Your task to perform on an android device: turn off priority inbox in the gmail app Image 0: 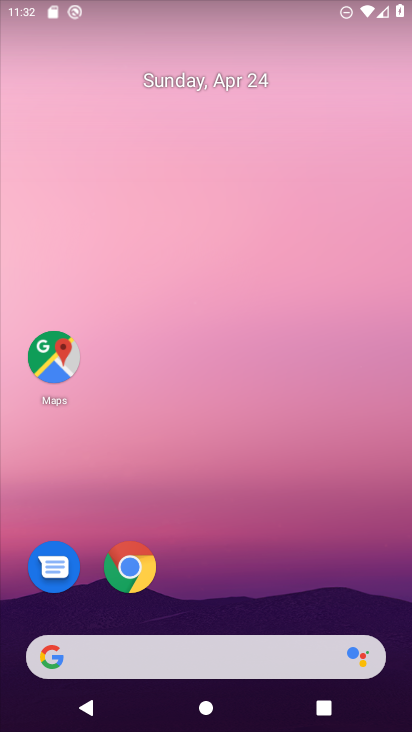
Step 0: drag from (222, 645) to (289, 3)
Your task to perform on an android device: turn off priority inbox in the gmail app Image 1: 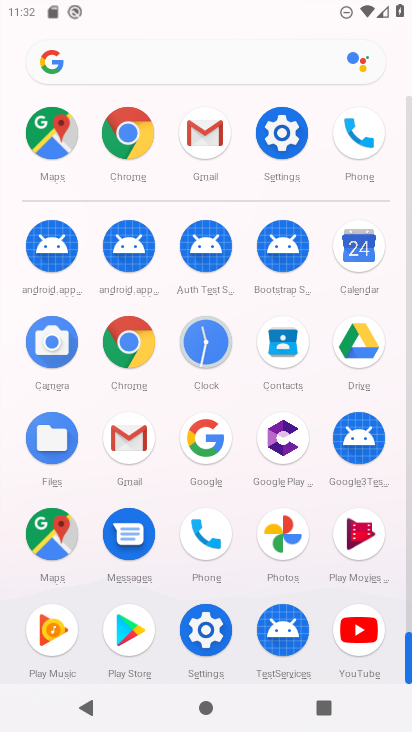
Step 1: click (119, 430)
Your task to perform on an android device: turn off priority inbox in the gmail app Image 2: 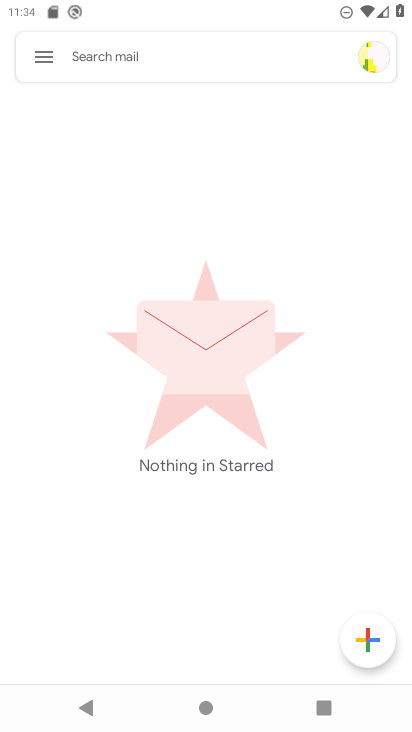
Step 2: click (33, 52)
Your task to perform on an android device: turn off priority inbox in the gmail app Image 3: 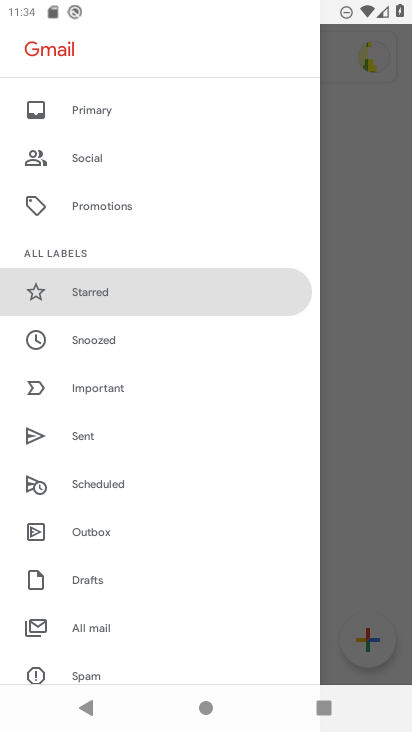
Step 3: drag from (264, 312) to (276, 60)
Your task to perform on an android device: turn off priority inbox in the gmail app Image 4: 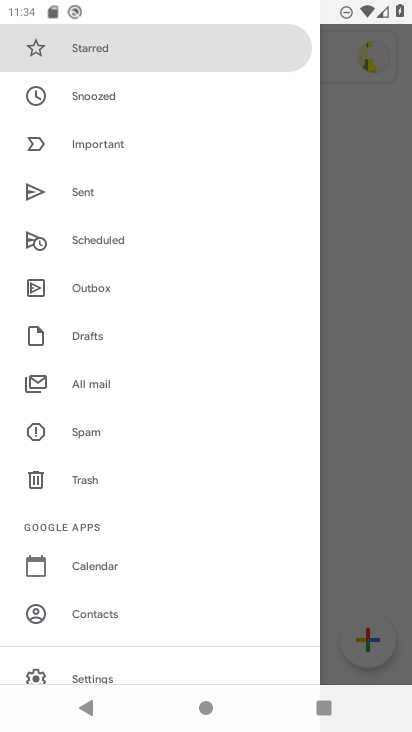
Step 4: drag from (131, 678) to (120, 235)
Your task to perform on an android device: turn off priority inbox in the gmail app Image 5: 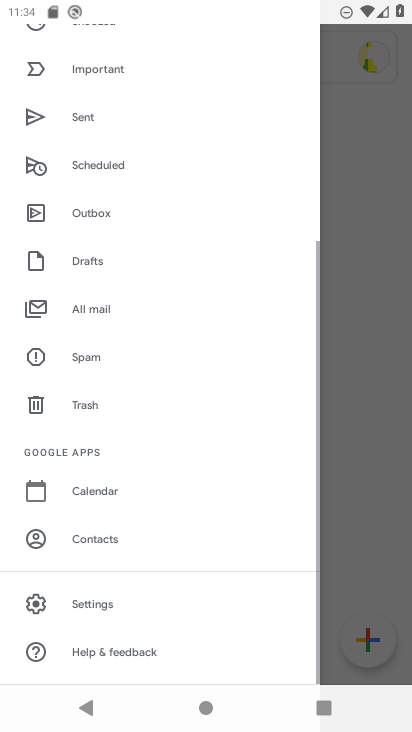
Step 5: click (111, 629)
Your task to perform on an android device: turn off priority inbox in the gmail app Image 6: 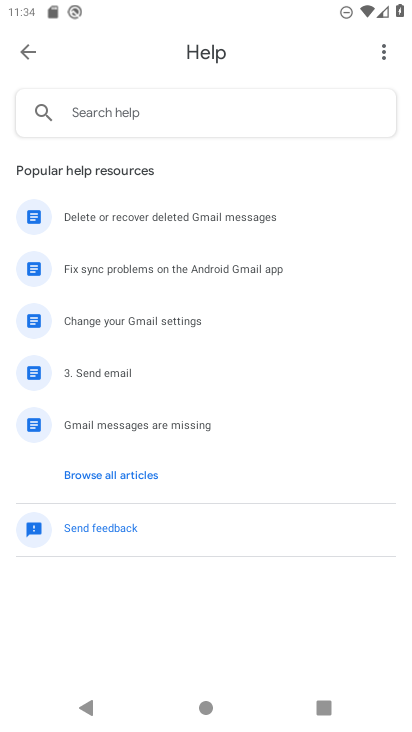
Step 6: press back button
Your task to perform on an android device: turn off priority inbox in the gmail app Image 7: 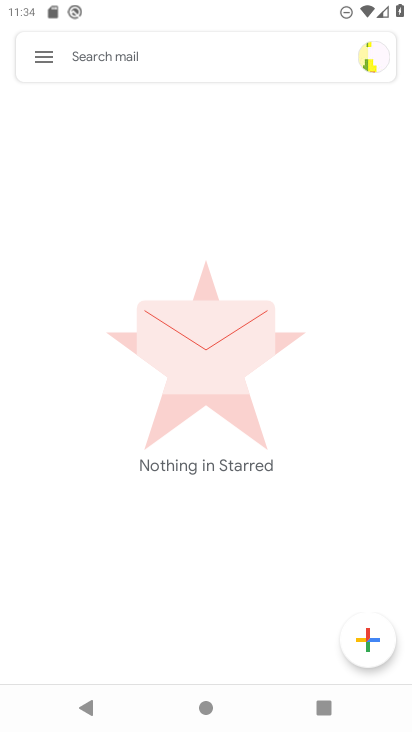
Step 7: click (41, 59)
Your task to perform on an android device: turn off priority inbox in the gmail app Image 8: 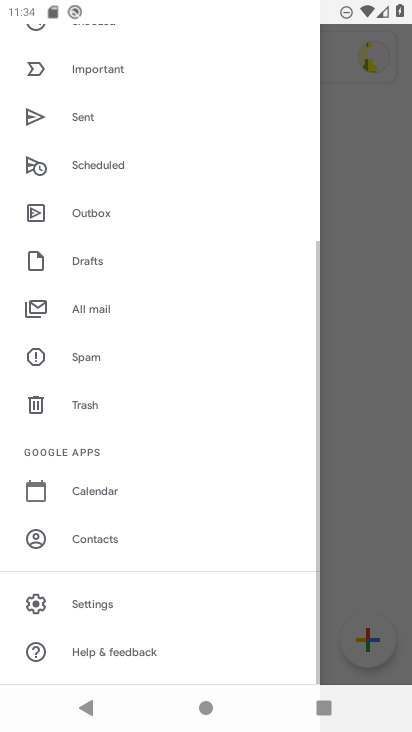
Step 8: click (119, 607)
Your task to perform on an android device: turn off priority inbox in the gmail app Image 9: 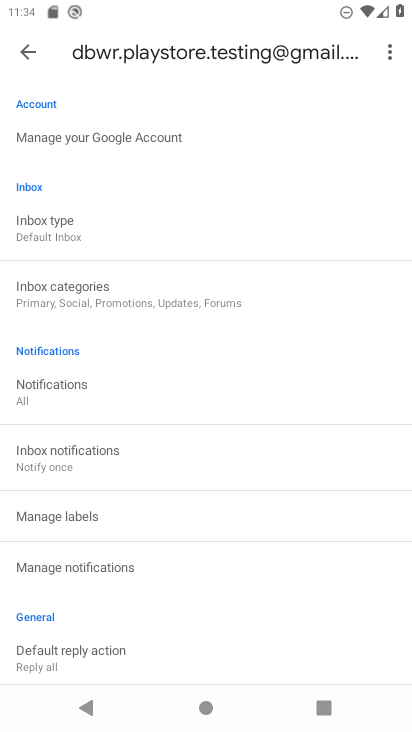
Step 9: task complete